Your task to perform on an android device: remove spam from my inbox in the gmail app Image 0: 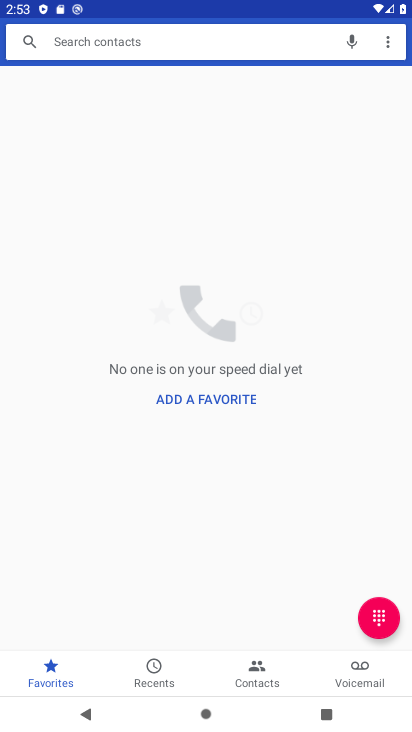
Step 0: press home button
Your task to perform on an android device: remove spam from my inbox in the gmail app Image 1: 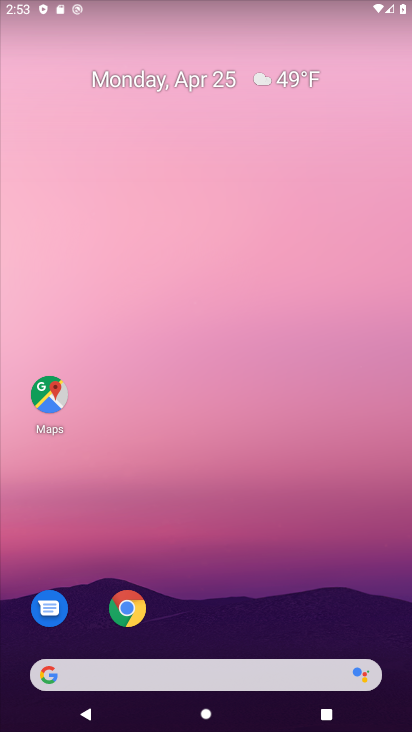
Step 1: drag from (230, 678) to (269, 228)
Your task to perform on an android device: remove spam from my inbox in the gmail app Image 2: 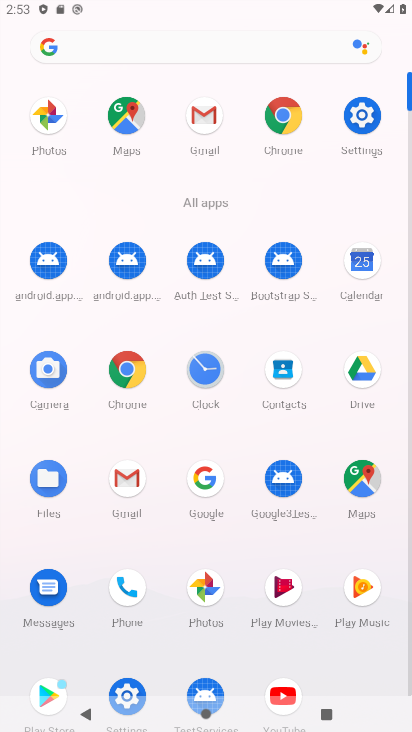
Step 2: click (138, 476)
Your task to perform on an android device: remove spam from my inbox in the gmail app Image 3: 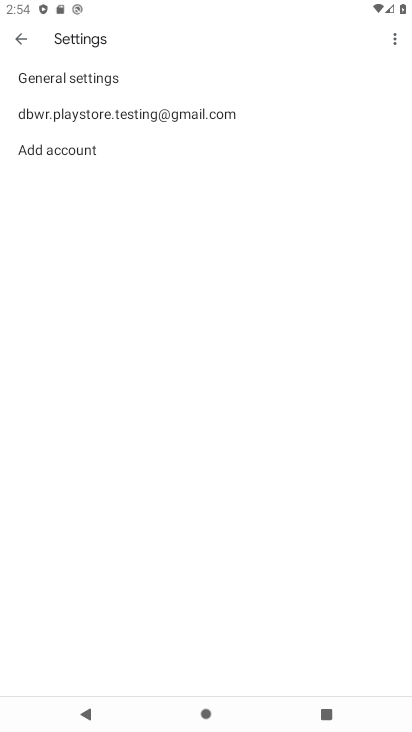
Step 3: press back button
Your task to perform on an android device: remove spam from my inbox in the gmail app Image 4: 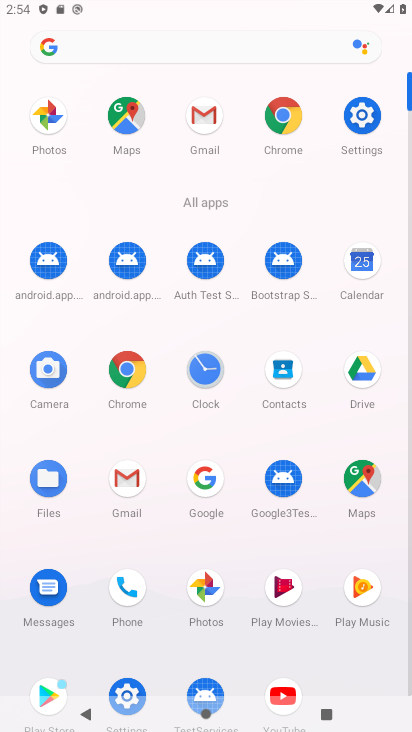
Step 4: click (125, 492)
Your task to perform on an android device: remove spam from my inbox in the gmail app Image 5: 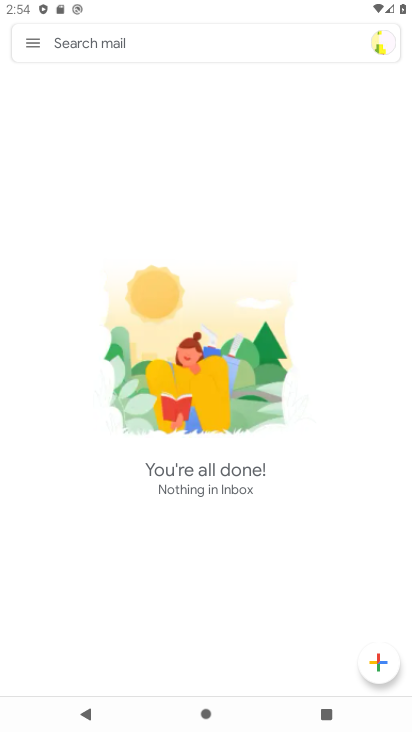
Step 5: click (33, 47)
Your task to perform on an android device: remove spam from my inbox in the gmail app Image 6: 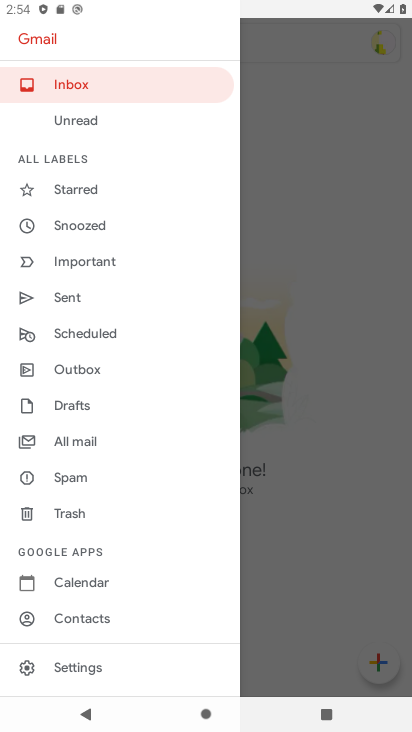
Step 6: click (78, 480)
Your task to perform on an android device: remove spam from my inbox in the gmail app Image 7: 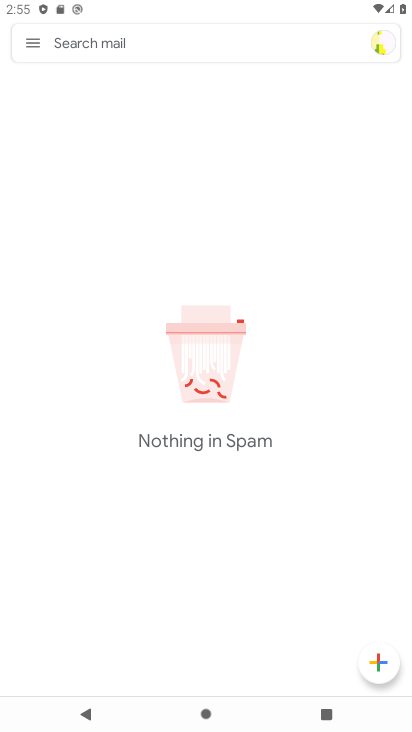
Step 7: click (34, 40)
Your task to perform on an android device: remove spam from my inbox in the gmail app Image 8: 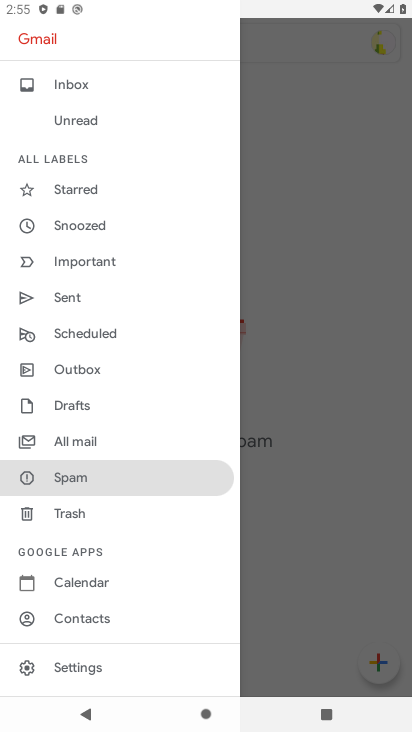
Step 8: click (112, 476)
Your task to perform on an android device: remove spam from my inbox in the gmail app Image 9: 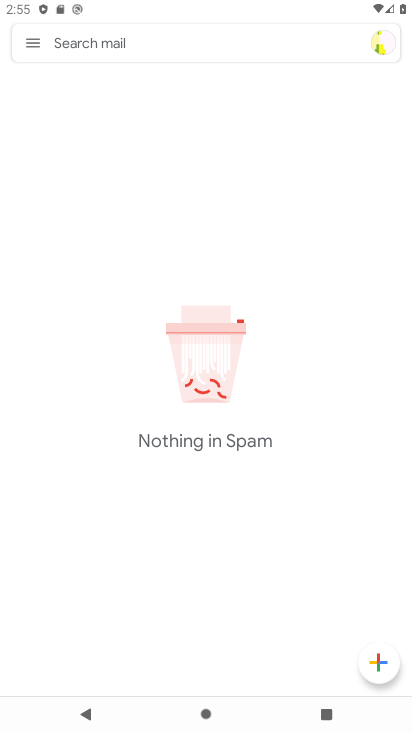
Step 9: task complete